Your task to perform on an android device: Go to Google Image 0: 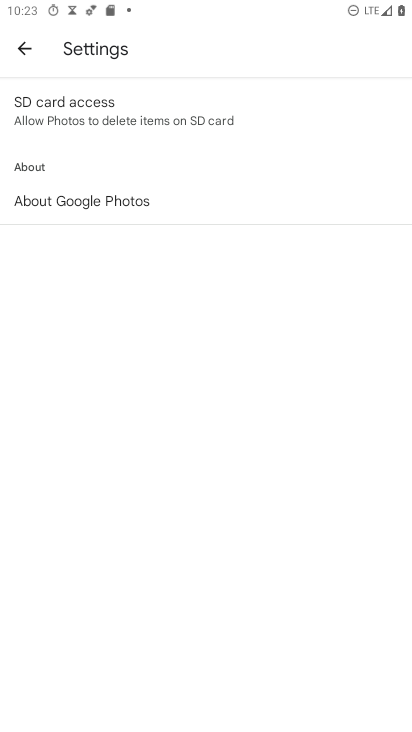
Step 0: press home button
Your task to perform on an android device: Go to Google Image 1: 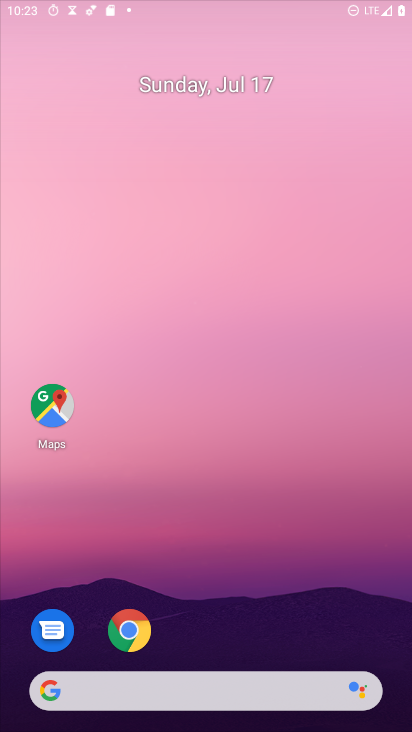
Step 1: drag from (190, 721) to (235, 5)
Your task to perform on an android device: Go to Google Image 2: 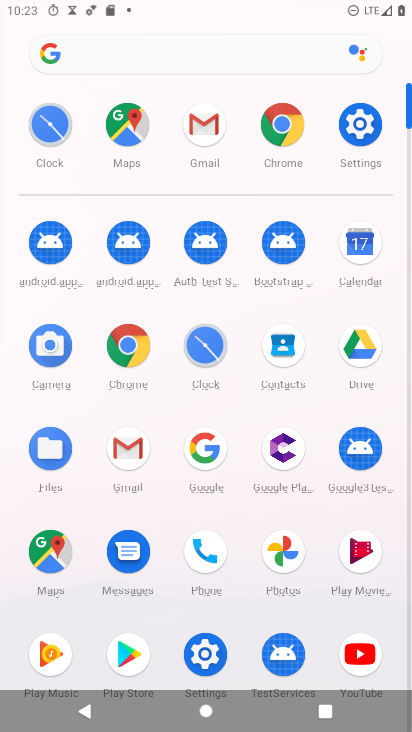
Step 2: click (129, 323)
Your task to perform on an android device: Go to Google Image 3: 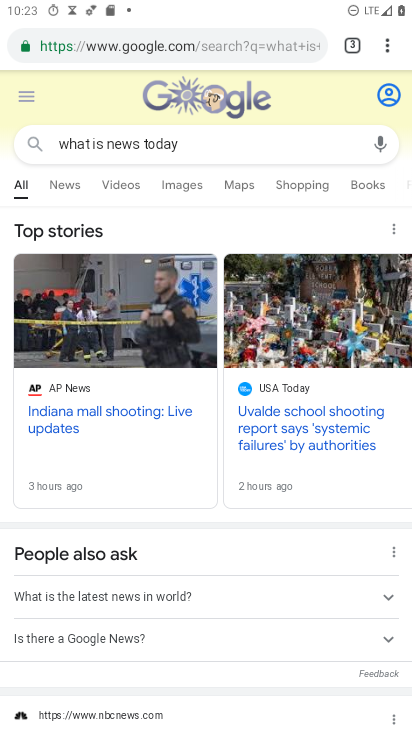
Step 3: click (393, 51)
Your task to perform on an android device: Go to Google Image 4: 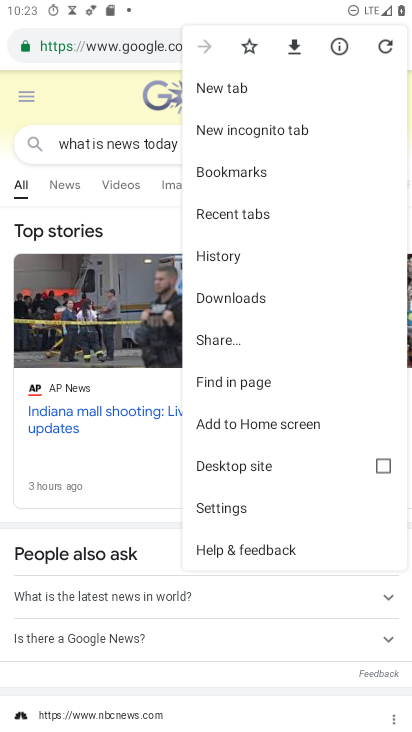
Step 4: click (291, 91)
Your task to perform on an android device: Go to Google Image 5: 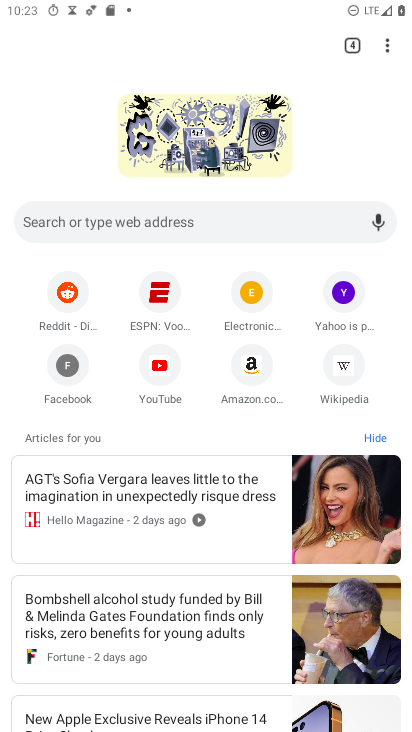
Step 5: task complete